Your task to perform on an android device: Clear the cart on ebay.com. Search for "alienware aurora" on ebay.com, select the first entry, add it to the cart, then select checkout. Image 0: 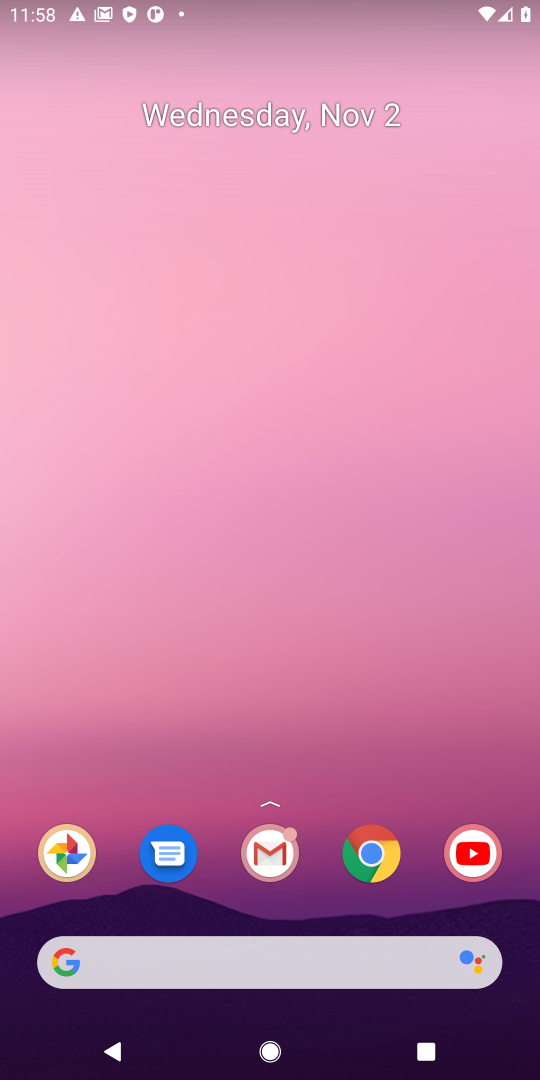
Step 0: click (362, 859)
Your task to perform on an android device: Clear the cart on ebay.com. Search for "alienware aurora" on ebay.com, select the first entry, add it to the cart, then select checkout. Image 1: 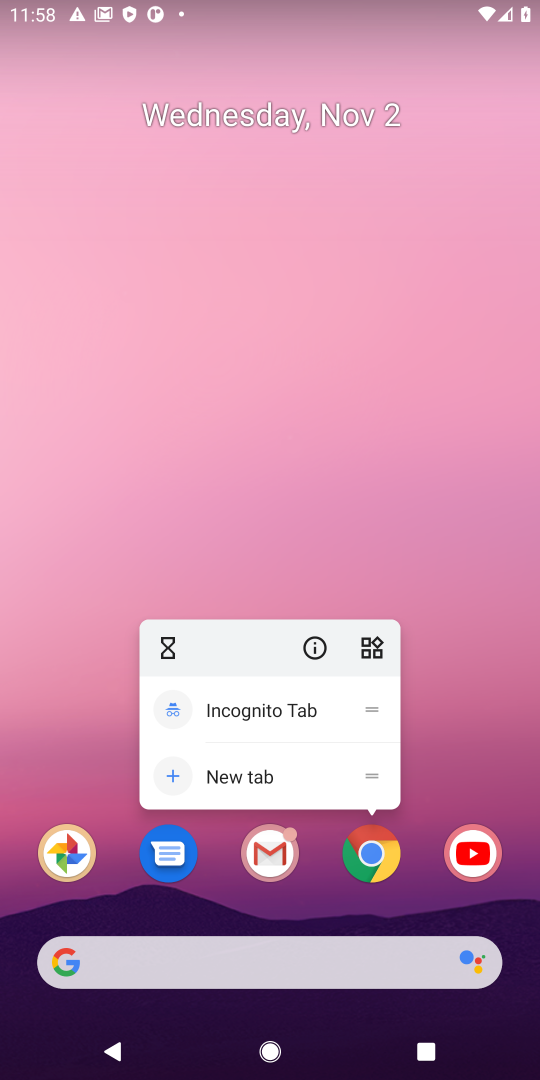
Step 1: click (363, 844)
Your task to perform on an android device: Clear the cart on ebay.com. Search for "alienware aurora" on ebay.com, select the first entry, add it to the cart, then select checkout. Image 2: 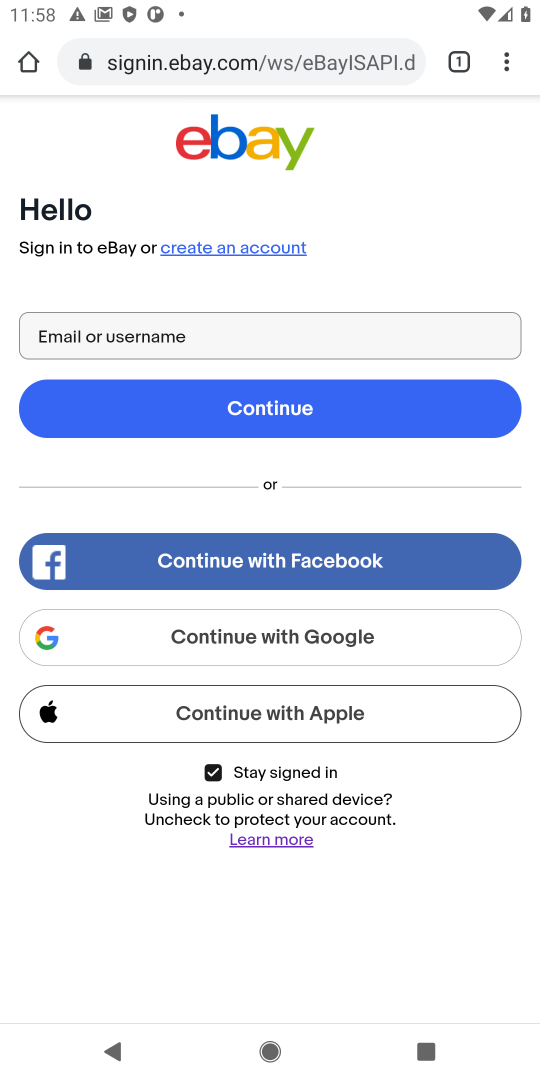
Step 2: press back button
Your task to perform on an android device: Clear the cart on ebay.com. Search for "alienware aurora" on ebay.com, select the first entry, add it to the cart, then select checkout. Image 3: 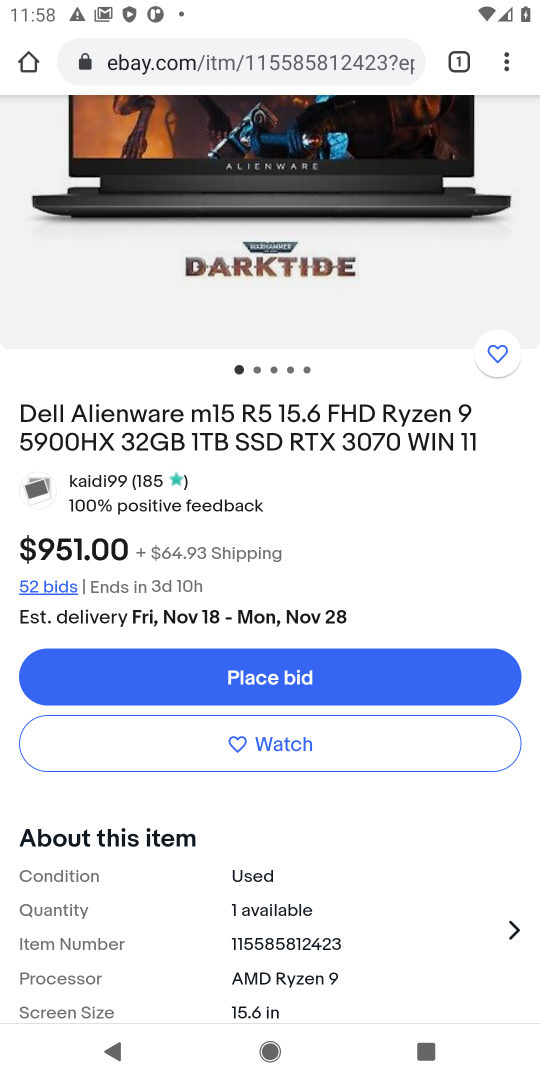
Step 3: drag from (420, 280) to (152, 895)
Your task to perform on an android device: Clear the cart on ebay.com. Search for "alienware aurora" on ebay.com, select the first entry, add it to the cart, then select checkout. Image 4: 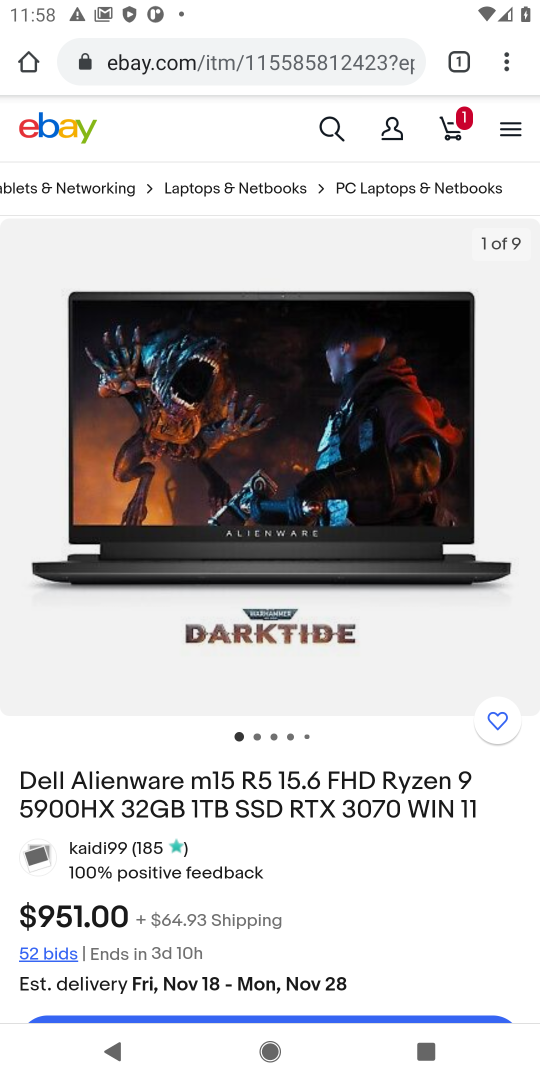
Step 4: click (458, 126)
Your task to perform on an android device: Clear the cart on ebay.com. Search for "alienware aurora" on ebay.com, select the first entry, add it to the cart, then select checkout. Image 5: 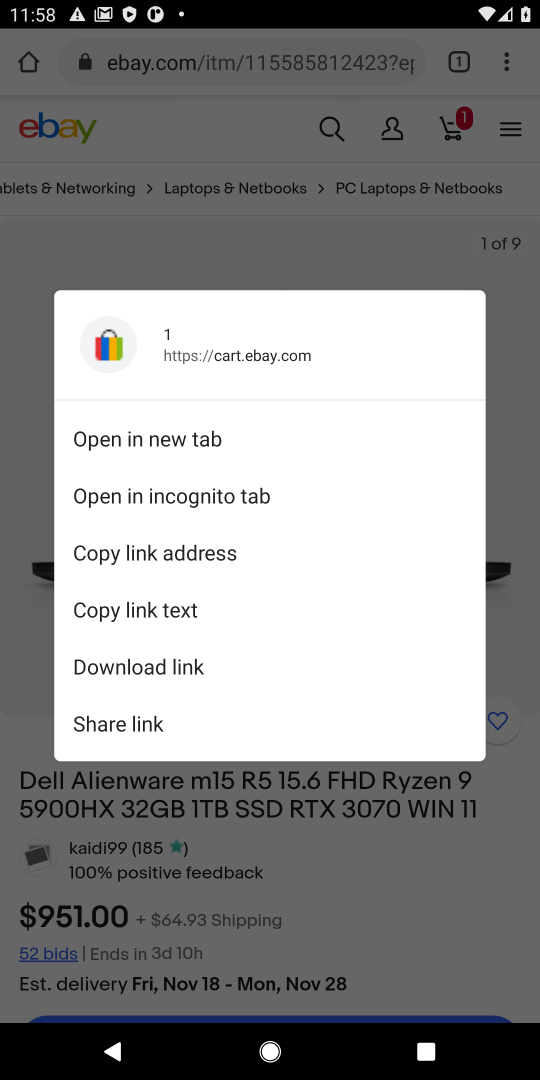
Step 5: click (452, 125)
Your task to perform on an android device: Clear the cart on ebay.com. Search for "alienware aurora" on ebay.com, select the first entry, add it to the cart, then select checkout. Image 6: 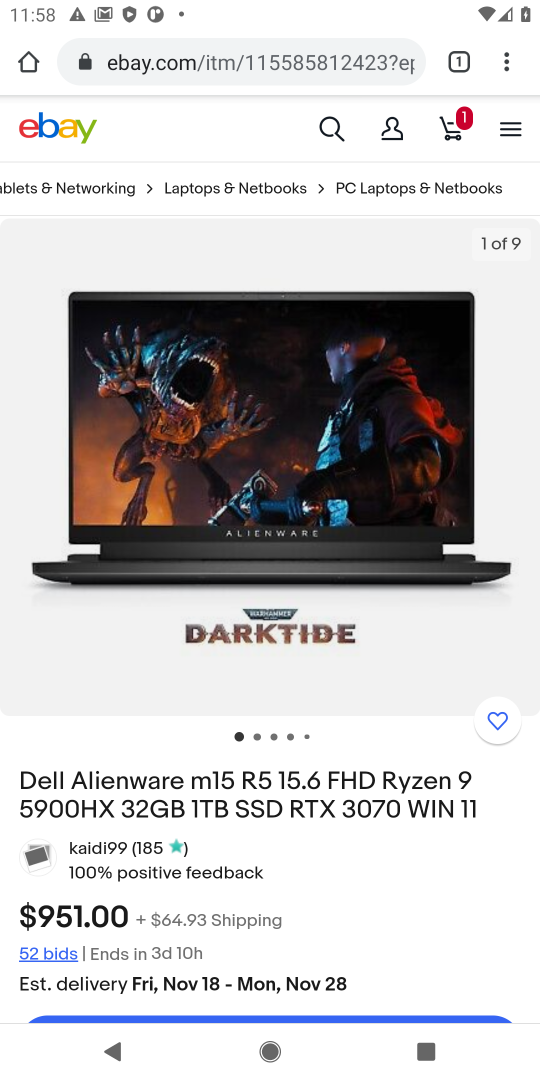
Step 6: click (461, 123)
Your task to perform on an android device: Clear the cart on ebay.com. Search for "alienware aurora" on ebay.com, select the first entry, add it to the cart, then select checkout. Image 7: 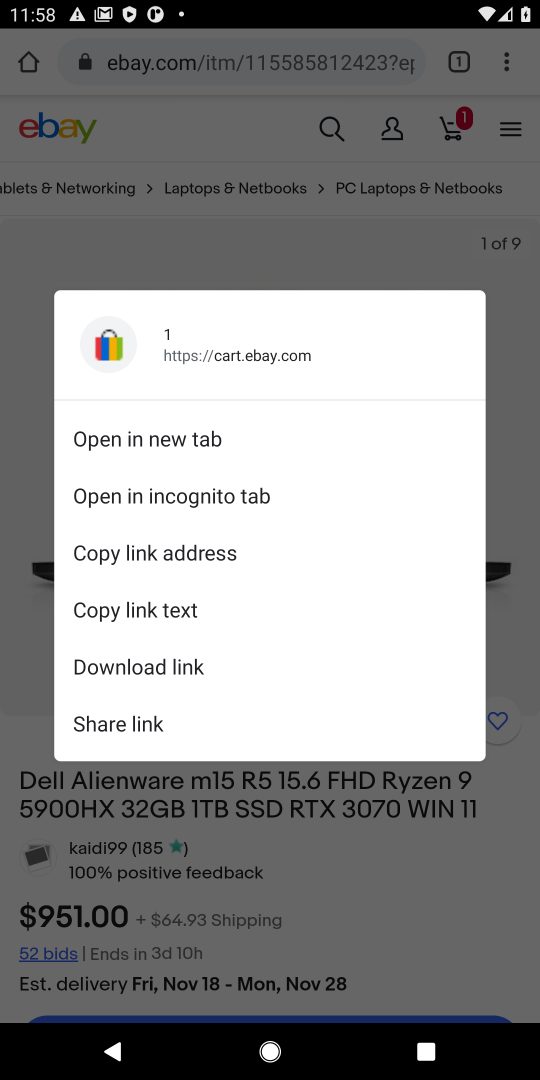
Step 7: click (461, 125)
Your task to perform on an android device: Clear the cart on ebay.com. Search for "alienware aurora" on ebay.com, select the first entry, add it to the cart, then select checkout. Image 8: 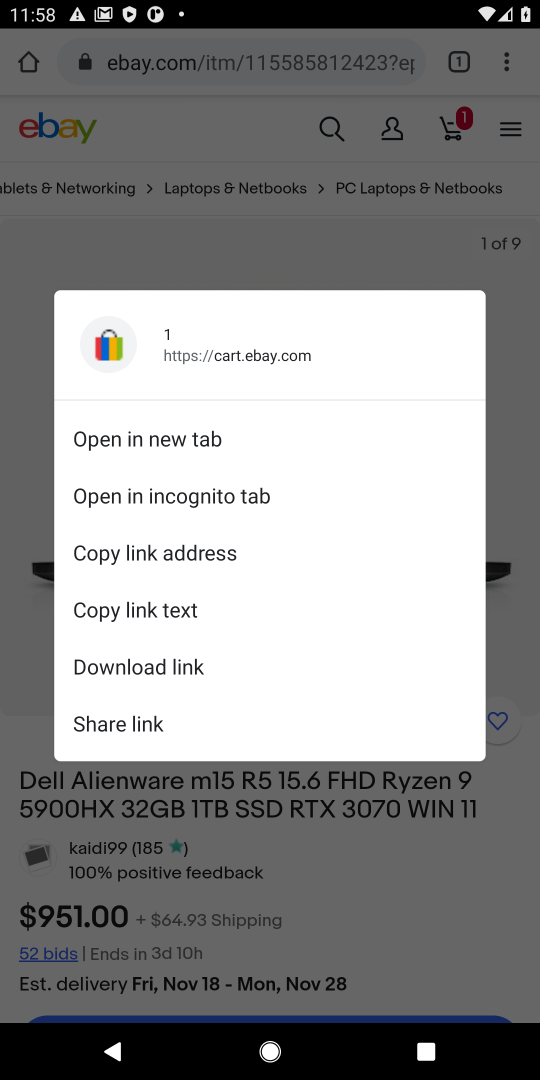
Step 8: click (465, 118)
Your task to perform on an android device: Clear the cart on ebay.com. Search for "alienware aurora" on ebay.com, select the first entry, add it to the cart, then select checkout. Image 9: 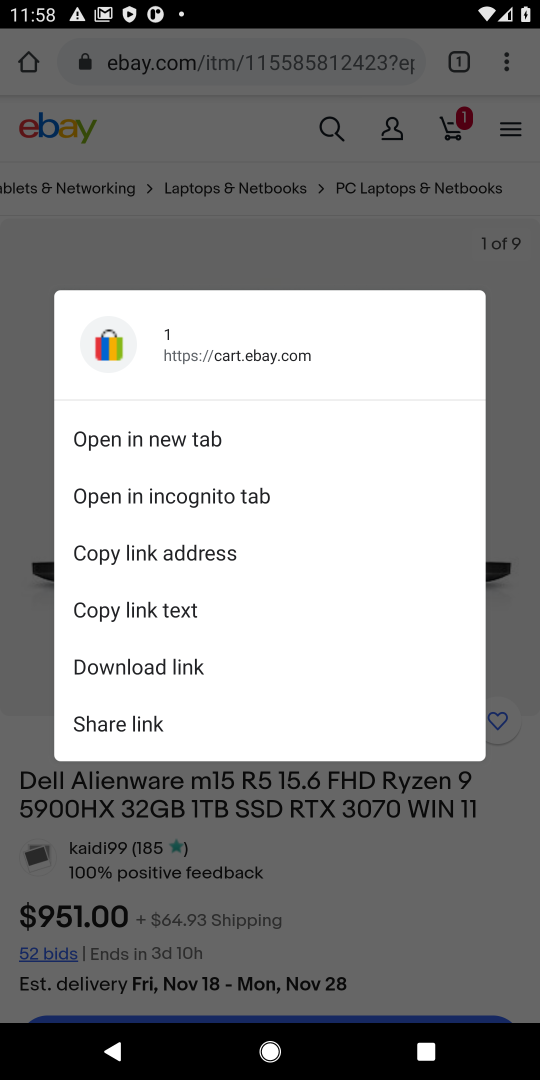
Step 9: click (454, 140)
Your task to perform on an android device: Clear the cart on ebay.com. Search for "alienware aurora" on ebay.com, select the first entry, add it to the cart, then select checkout. Image 10: 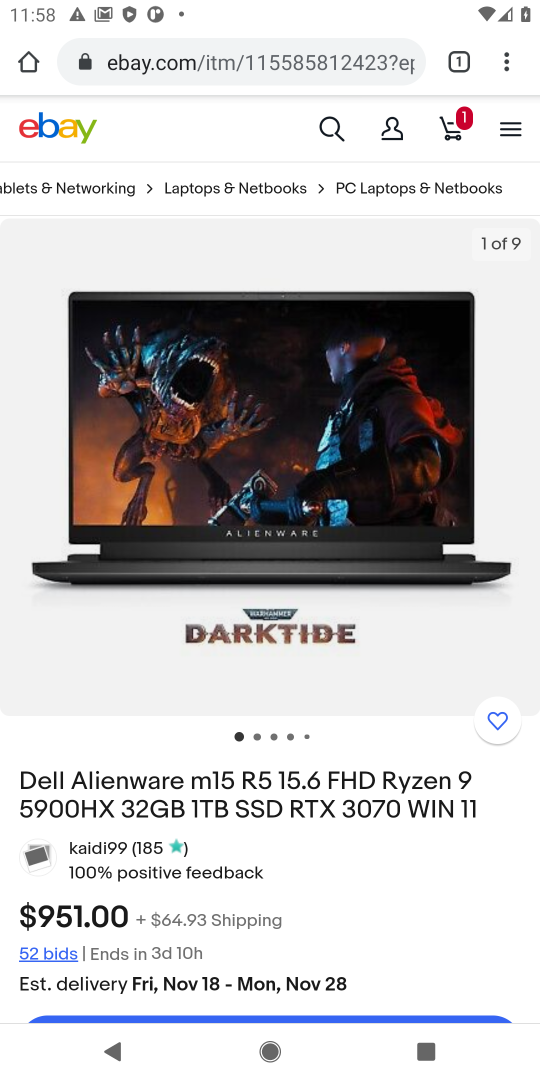
Step 10: click (446, 121)
Your task to perform on an android device: Clear the cart on ebay.com. Search for "alienware aurora" on ebay.com, select the first entry, add it to the cart, then select checkout. Image 11: 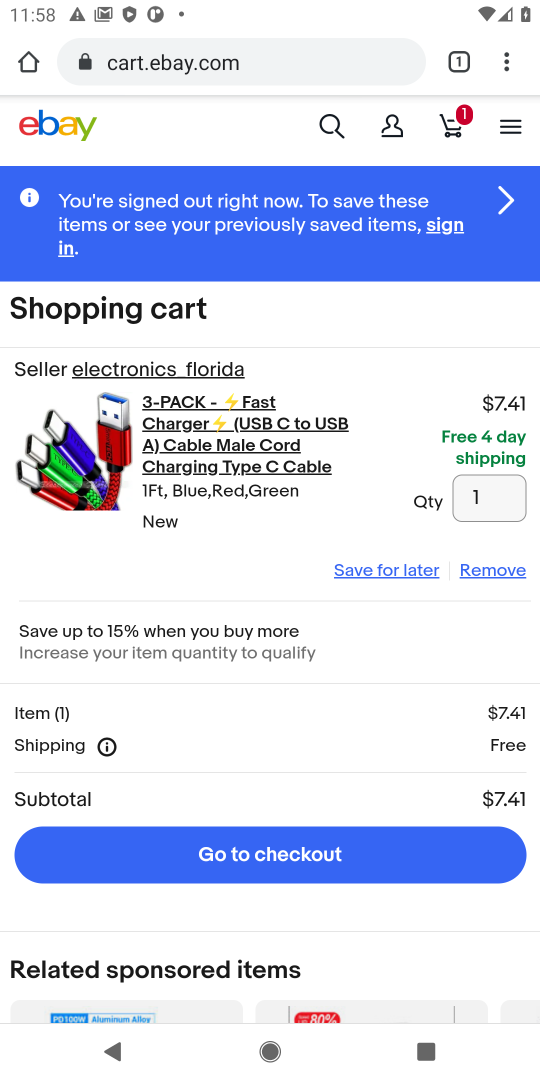
Step 11: click (489, 568)
Your task to perform on an android device: Clear the cart on ebay.com. Search for "alienware aurora" on ebay.com, select the first entry, add it to the cart, then select checkout. Image 12: 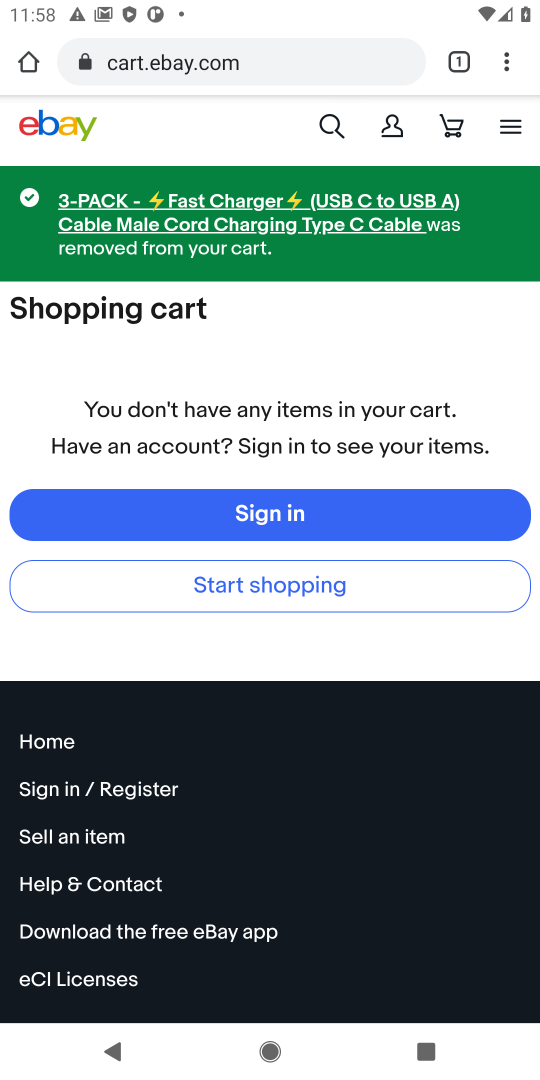
Step 12: click (323, 125)
Your task to perform on an android device: Clear the cart on ebay.com. Search for "alienware aurora" on ebay.com, select the first entry, add it to the cart, then select checkout. Image 13: 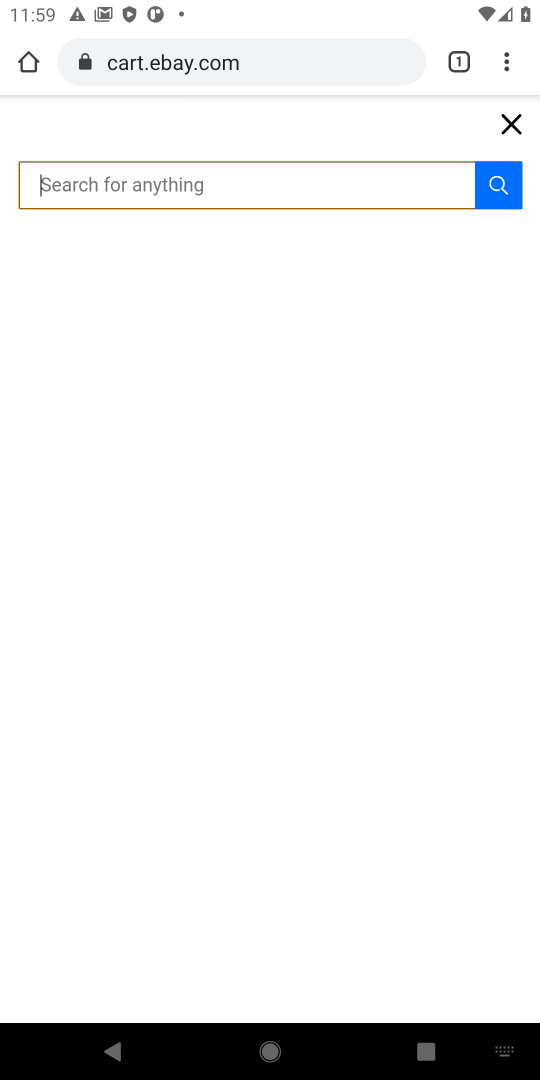
Step 13: type "alienware aurora"
Your task to perform on an android device: Clear the cart on ebay.com. Search for "alienware aurora" on ebay.com, select the first entry, add it to the cart, then select checkout. Image 14: 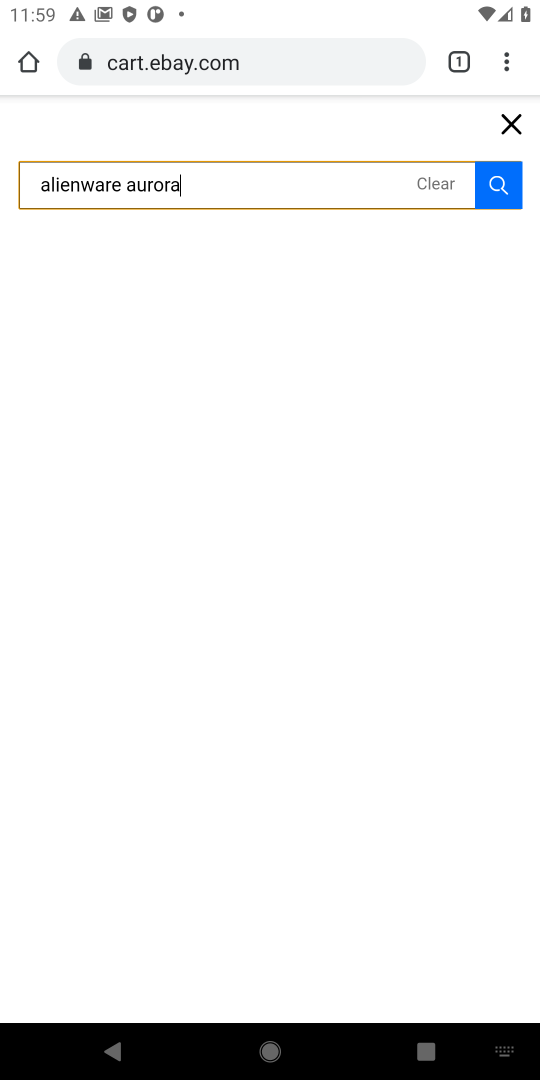
Step 14: press enter
Your task to perform on an android device: Clear the cart on ebay.com. Search for "alienware aurora" on ebay.com, select the first entry, add it to the cart, then select checkout. Image 15: 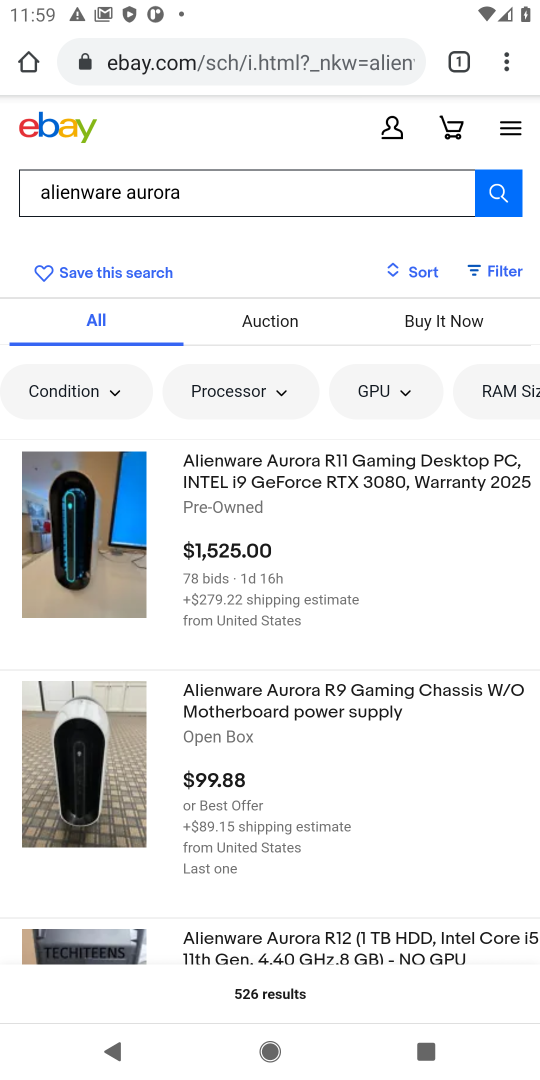
Step 15: click (282, 512)
Your task to perform on an android device: Clear the cart on ebay.com. Search for "alienware aurora" on ebay.com, select the first entry, add it to the cart, then select checkout. Image 16: 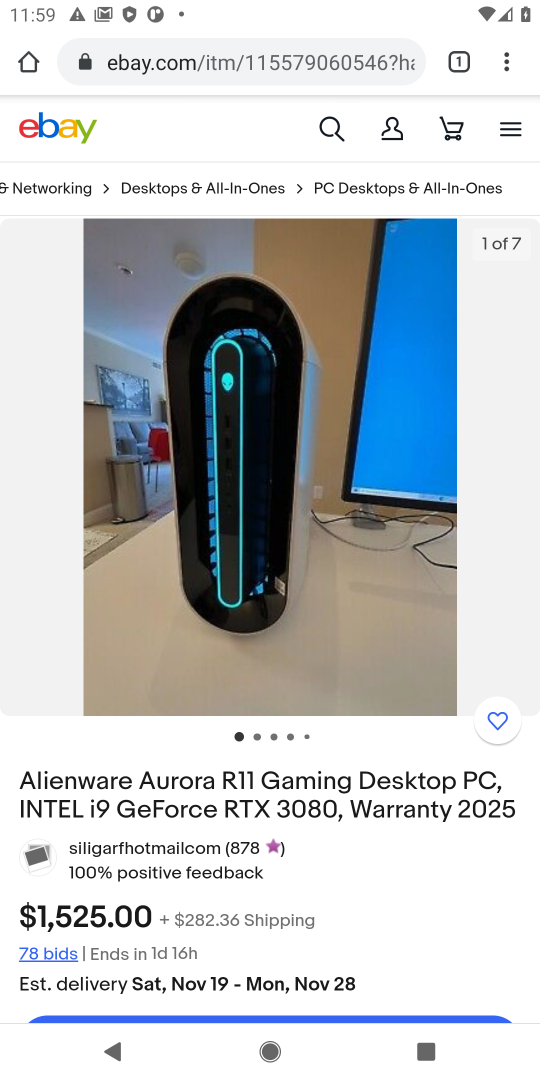
Step 16: task complete